Your task to perform on an android device: Go to ESPN.com Image 0: 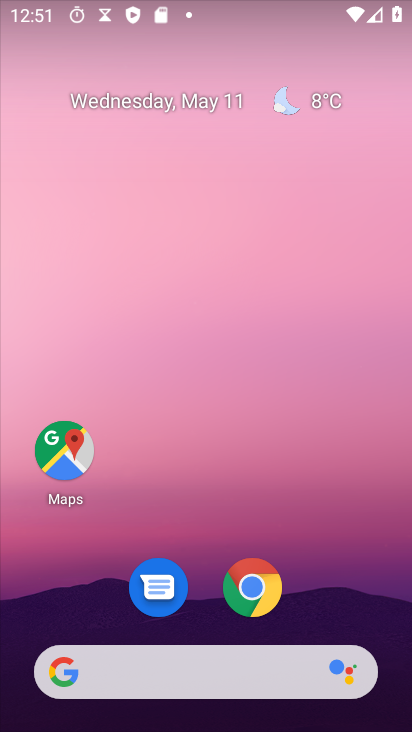
Step 0: drag from (398, 648) to (225, 160)
Your task to perform on an android device: Go to ESPN.com Image 1: 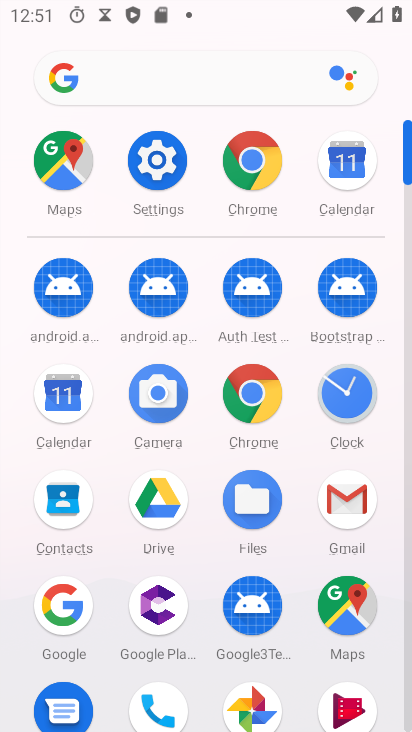
Step 1: click (266, 162)
Your task to perform on an android device: Go to ESPN.com Image 2: 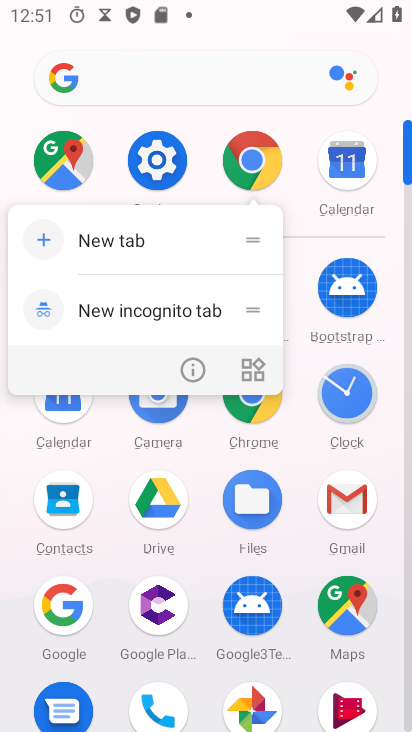
Step 2: click (257, 164)
Your task to perform on an android device: Go to ESPN.com Image 3: 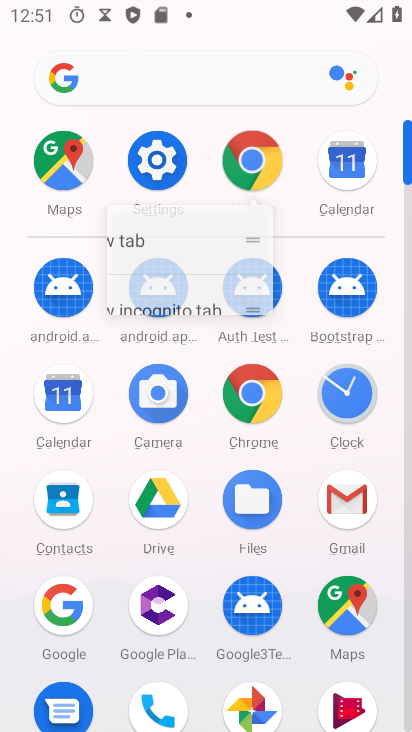
Step 3: click (257, 164)
Your task to perform on an android device: Go to ESPN.com Image 4: 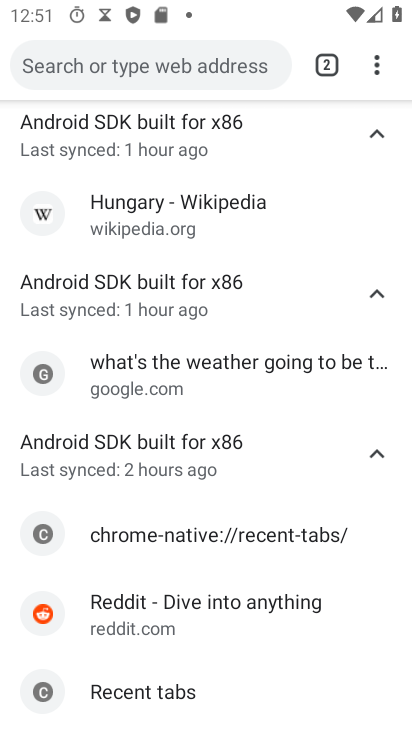
Step 4: drag from (371, 69) to (130, 119)
Your task to perform on an android device: Go to ESPN.com Image 5: 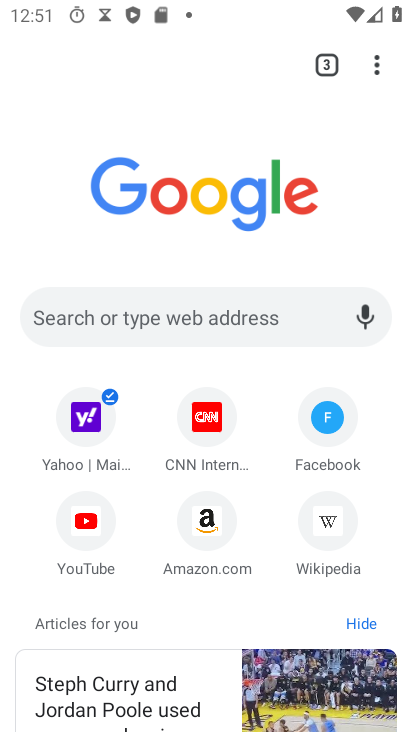
Step 5: click (53, 308)
Your task to perform on an android device: Go to ESPN.com Image 6: 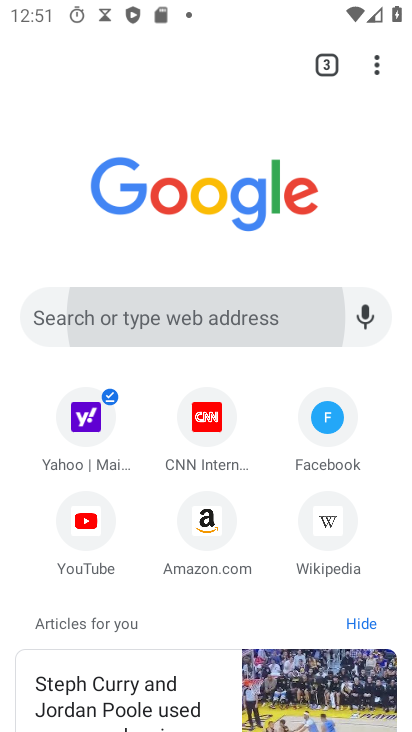
Step 6: click (52, 307)
Your task to perform on an android device: Go to ESPN.com Image 7: 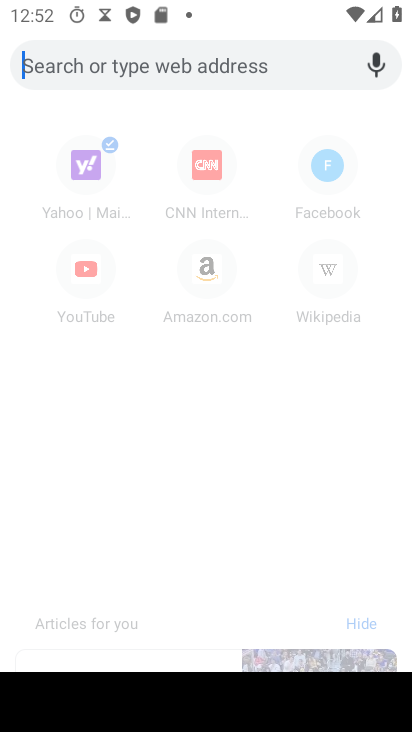
Step 7: type "espn.com"
Your task to perform on an android device: Go to ESPN.com Image 8: 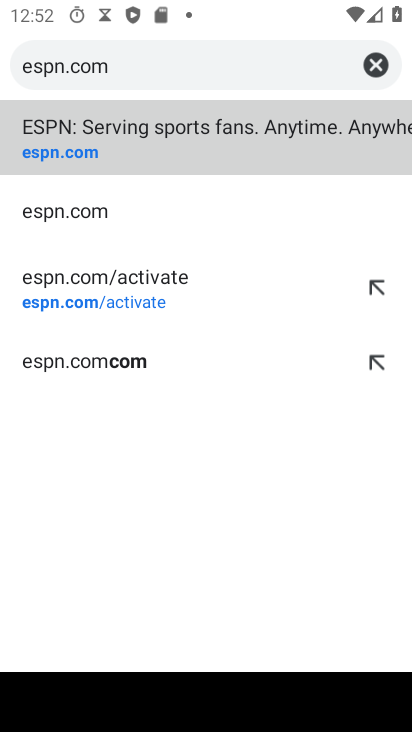
Step 8: click (56, 156)
Your task to perform on an android device: Go to ESPN.com Image 9: 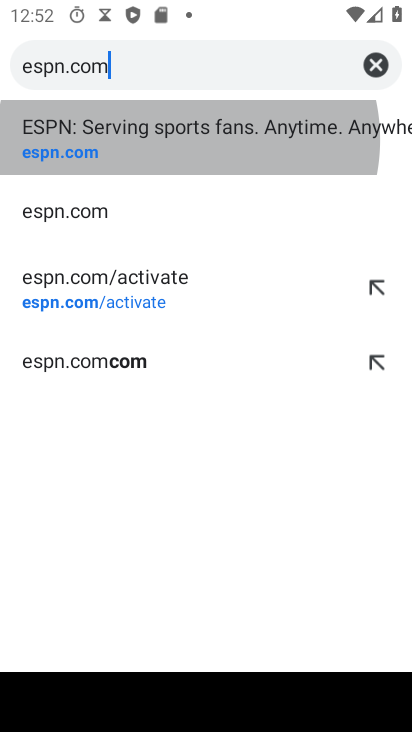
Step 9: click (56, 155)
Your task to perform on an android device: Go to ESPN.com Image 10: 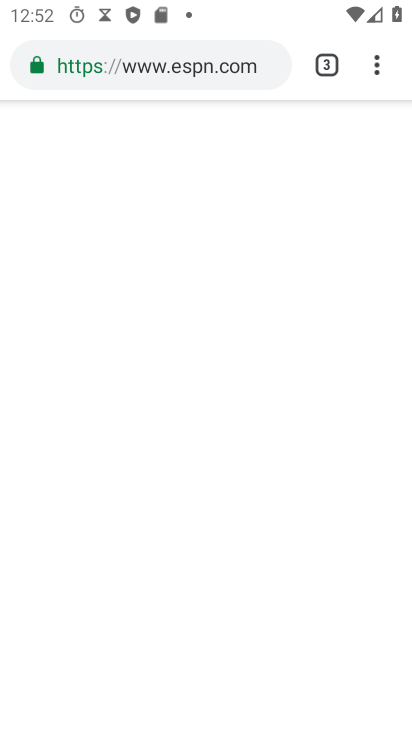
Step 10: task complete